Your task to perform on an android device: install app "LinkedIn" Image 0: 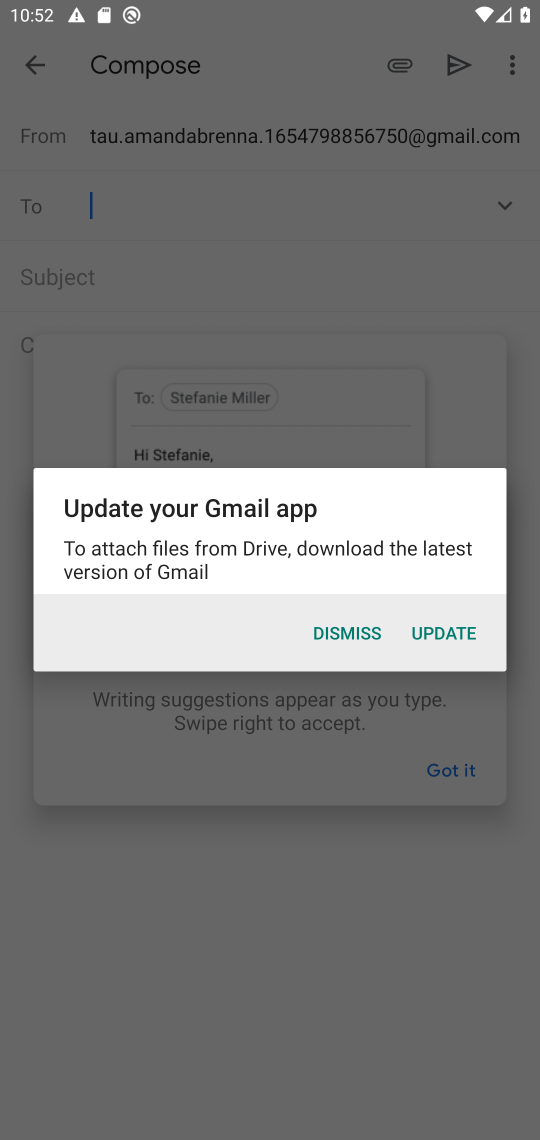
Step 0: press home button
Your task to perform on an android device: install app "LinkedIn" Image 1: 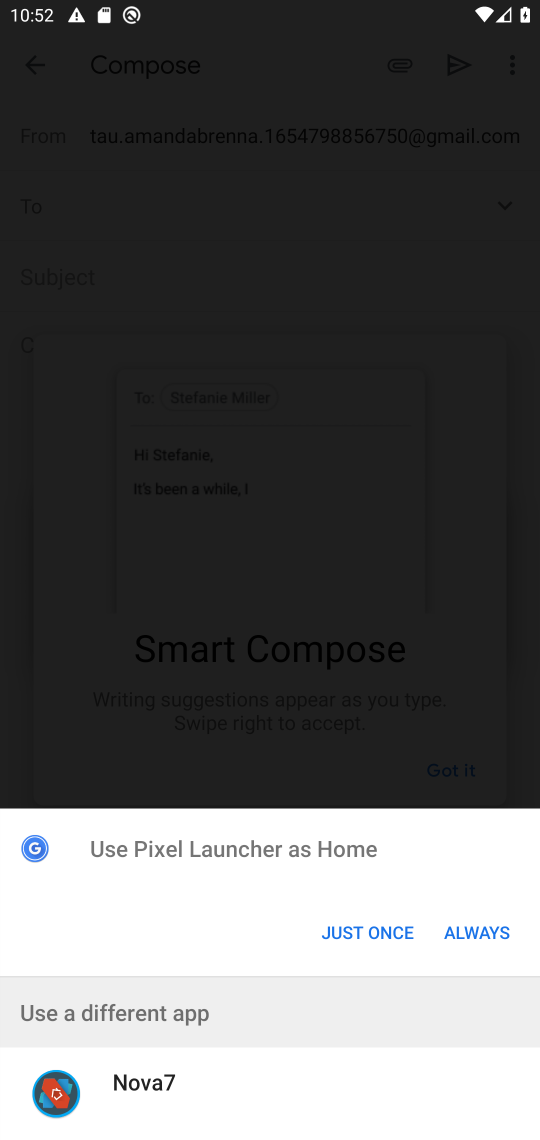
Step 1: click (363, 937)
Your task to perform on an android device: install app "LinkedIn" Image 2: 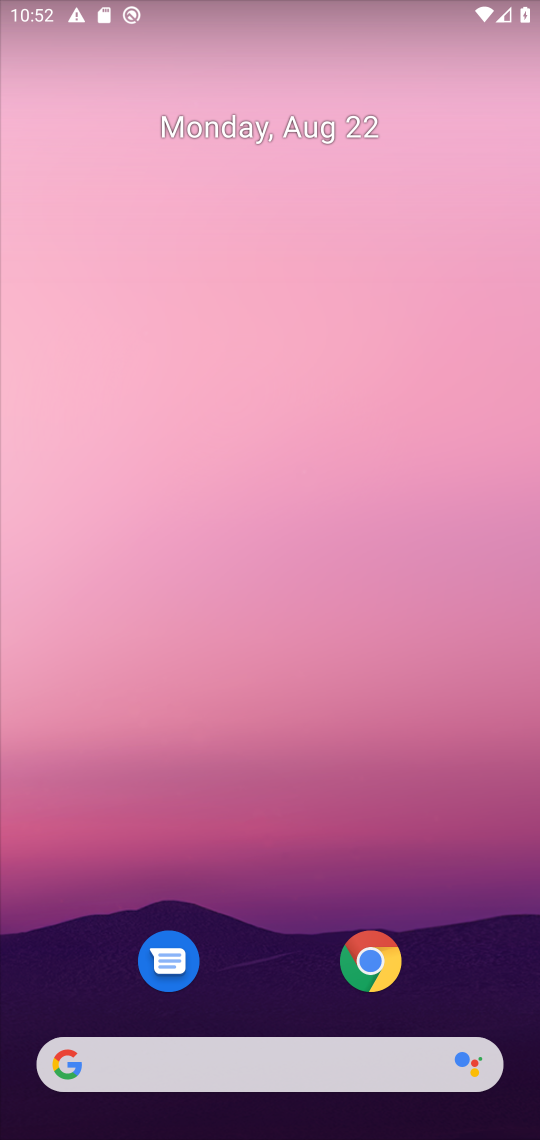
Step 2: drag from (276, 1020) to (337, 76)
Your task to perform on an android device: install app "LinkedIn" Image 3: 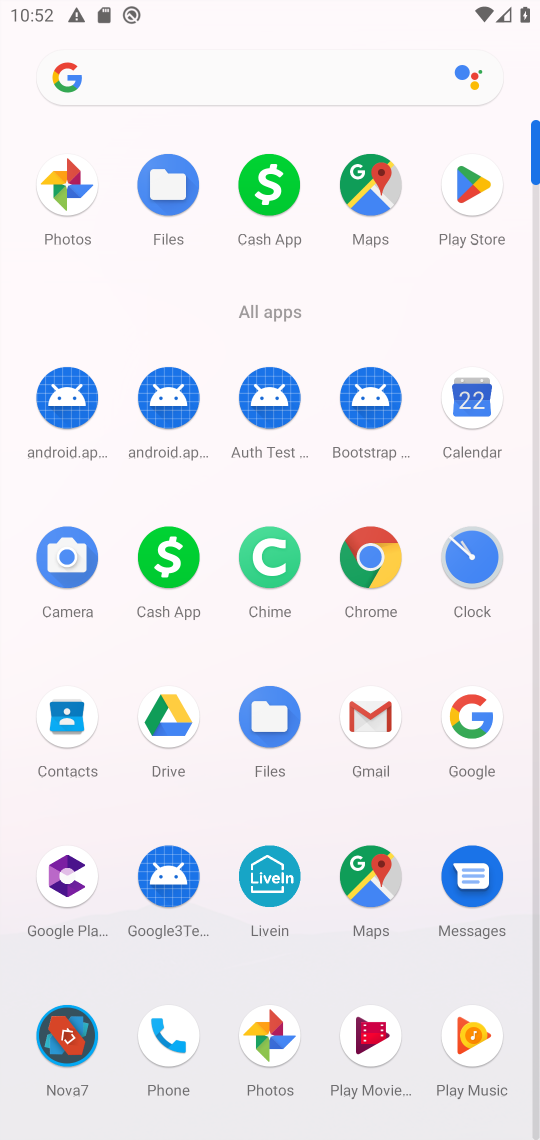
Step 3: click (480, 206)
Your task to perform on an android device: install app "LinkedIn" Image 4: 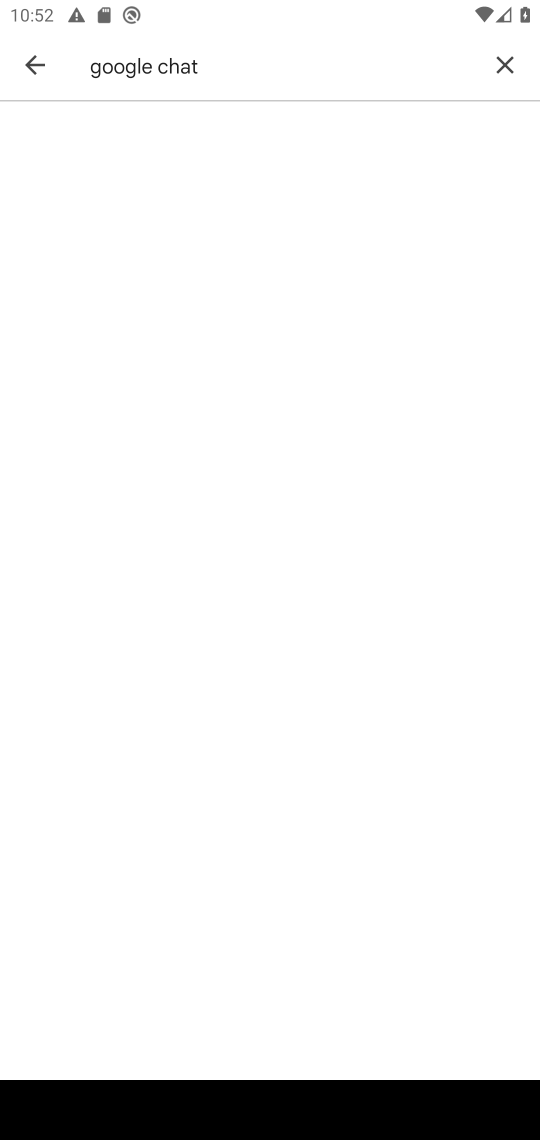
Step 4: click (493, 46)
Your task to perform on an android device: install app "LinkedIn" Image 5: 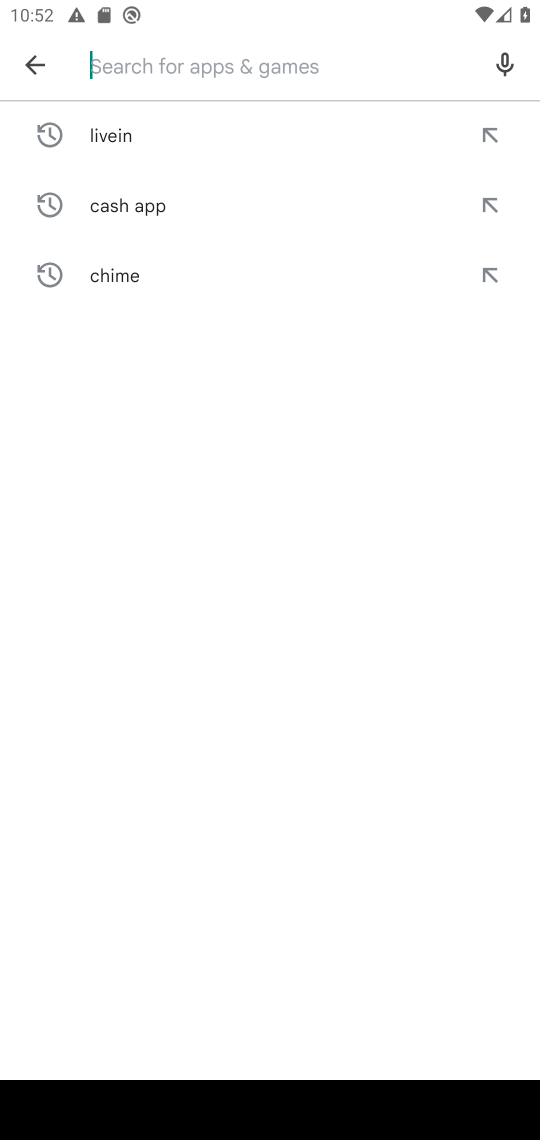
Step 5: type "linkedin"
Your task to perform on an android device: install app "LinkedIn" Image 6: 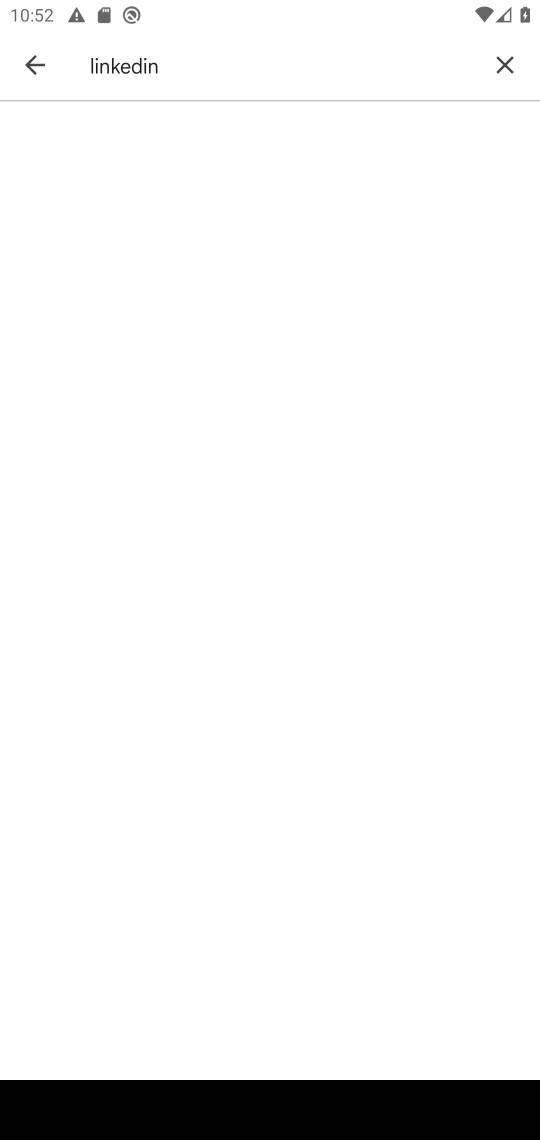
Step 6: task complete